Your task to perform on an android device: Search for sushi restaurants on Maps Image 0: 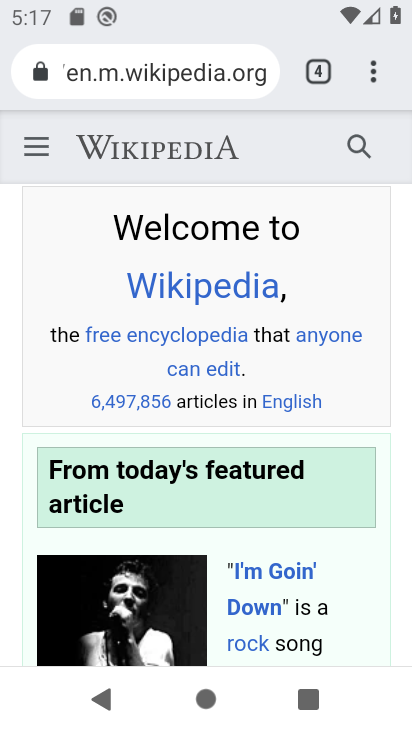
Step 0: press home button
Your task to perform on an android device: Search for sushi restaurants on Maps Image 1: 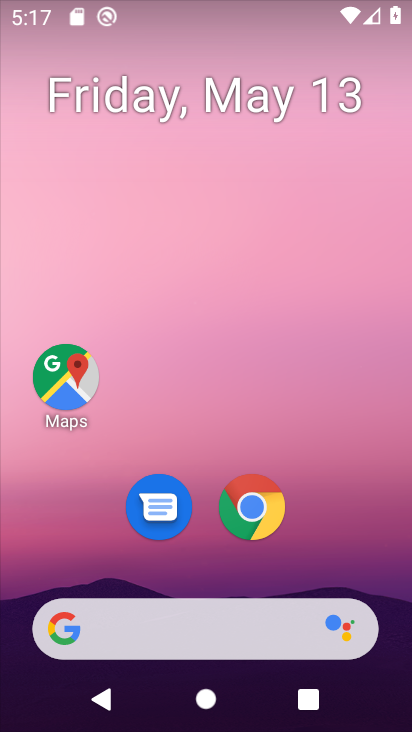
Step 1: click (54, 374)
Your task to perform on an android device: Search for sushi restaurants on Maps Image 2: 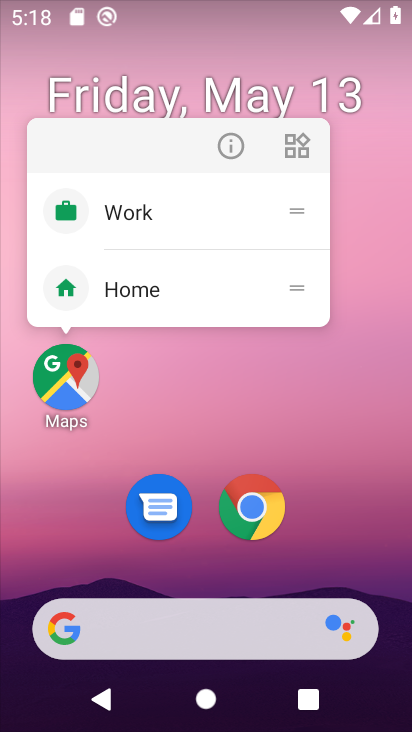
Step 2: click (48, 391)
Your task to perform on an android device: Search for sushi restaurants on Maps Image 3: 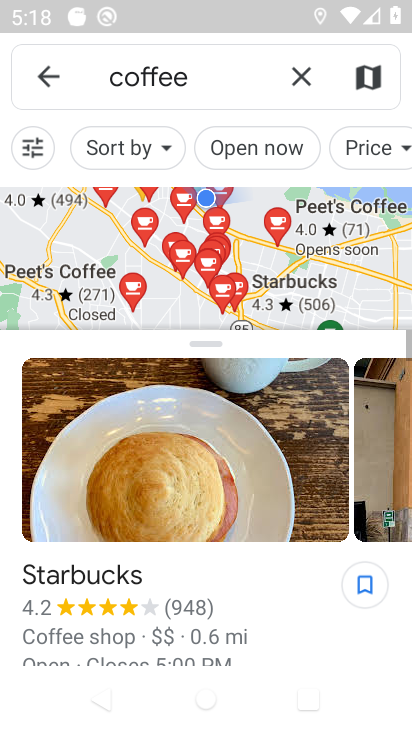
Step 3: click (299, 76)
Your task to perform on an android device: Search for sushi restaurants on Maps Image 4: 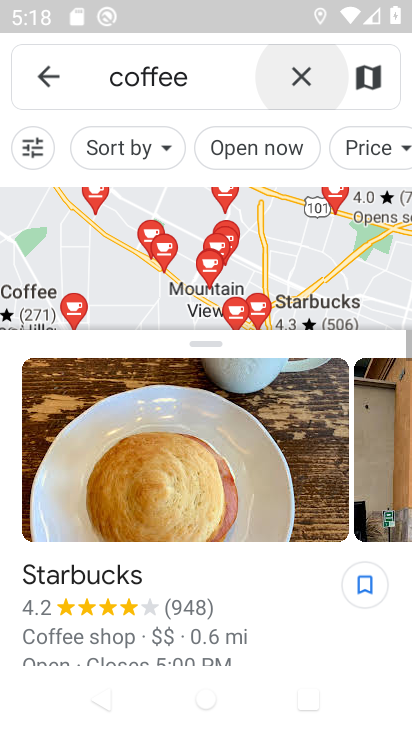
Step 4: click (203, 76)
Your task to perform on an android device: Search for sushi restaurants on Maps Image 5: 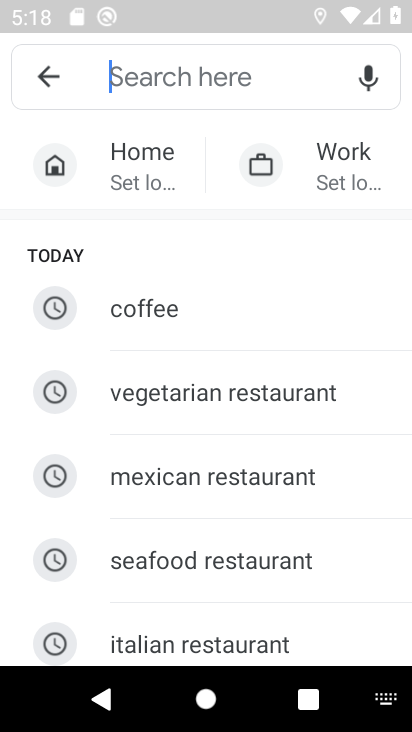
Step 5: drag from (232, 610) to (204, 260)
Your task to perform on an android device: Search for sushi restaurants on Maps Image 6: 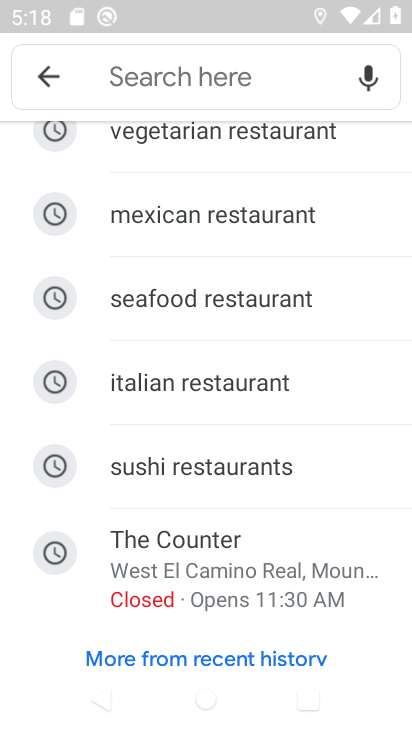
Step 6: click (203, 458)
Your task to perform on an android device: Search for sushi restaurants on Maps Image 7: 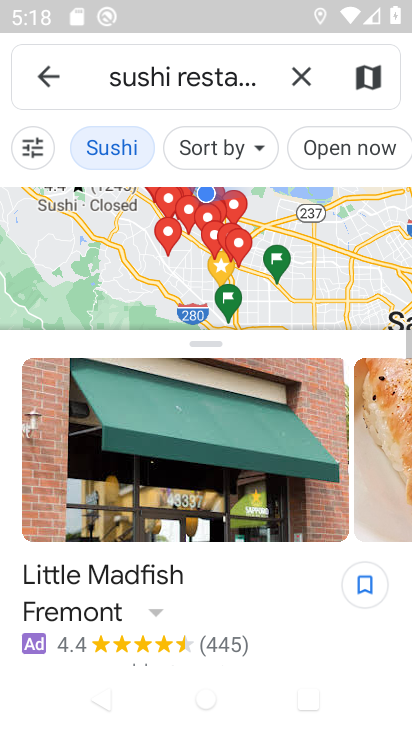
Step 7: task complete